Your task to perform on an android device: Go to Wikipedia Image 0: 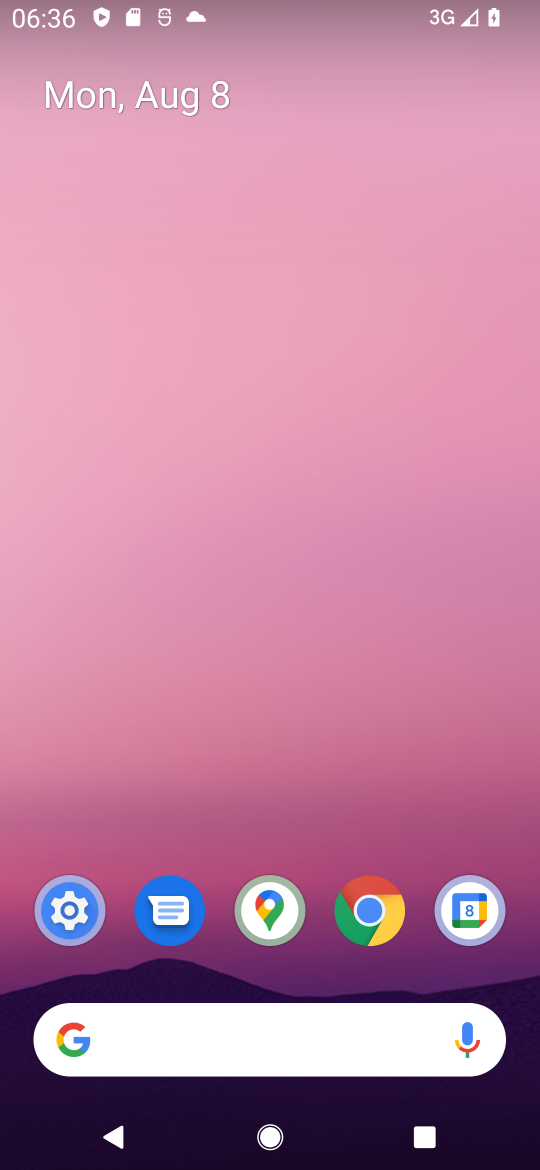
Step 0: click (368, 911)
Your task to perform on an android device: Go to Wikipedia Image 1: 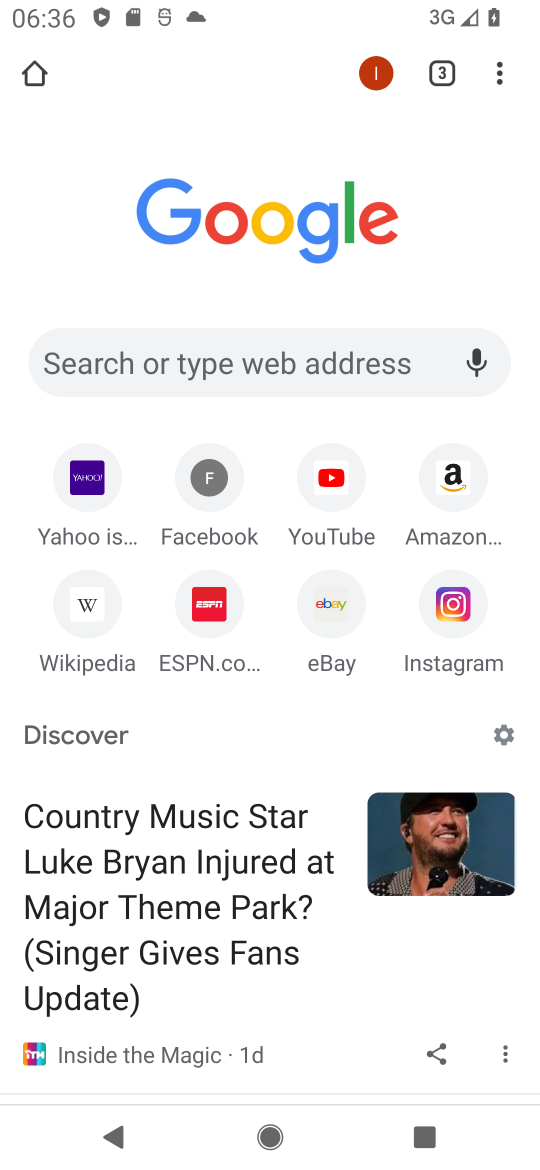
Step 1: click (247, 347)
Your task to perform on an android device: Go to Wikipedia Image 2: 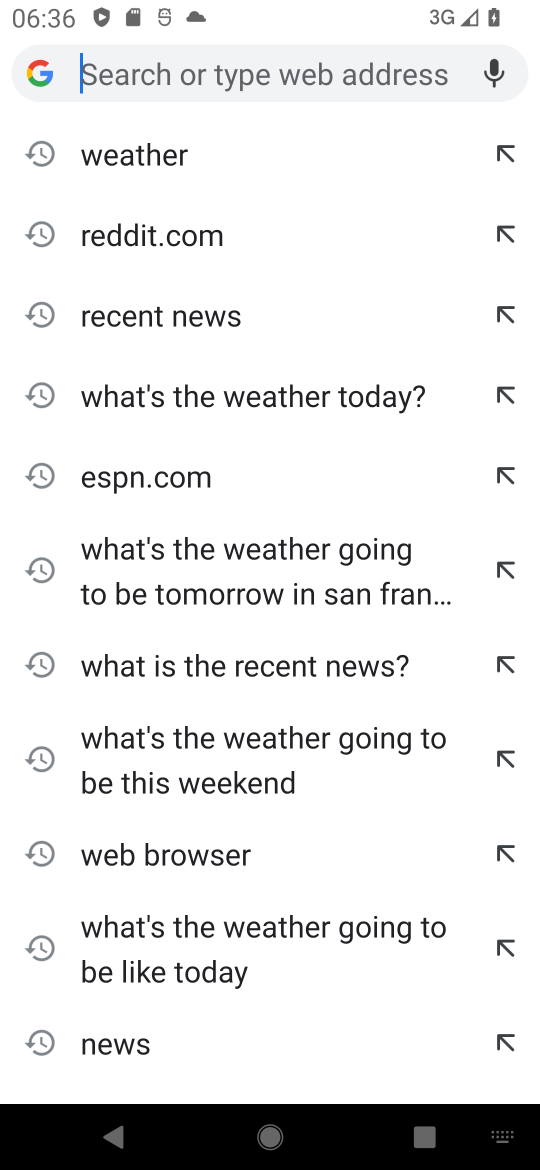
Step 2: type "Wikipedia"
Your task to perform on an android device: Go to Wikipedia Image 3: 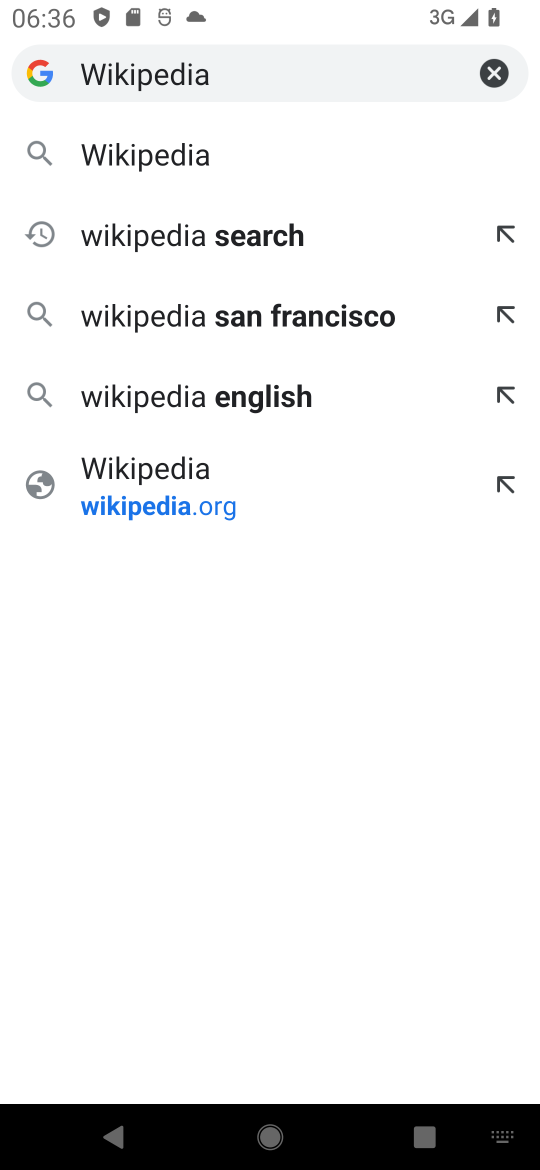
Step 3: click (178, 154)
Your task to perform on an android device: Go to Wikipedia Image 4: 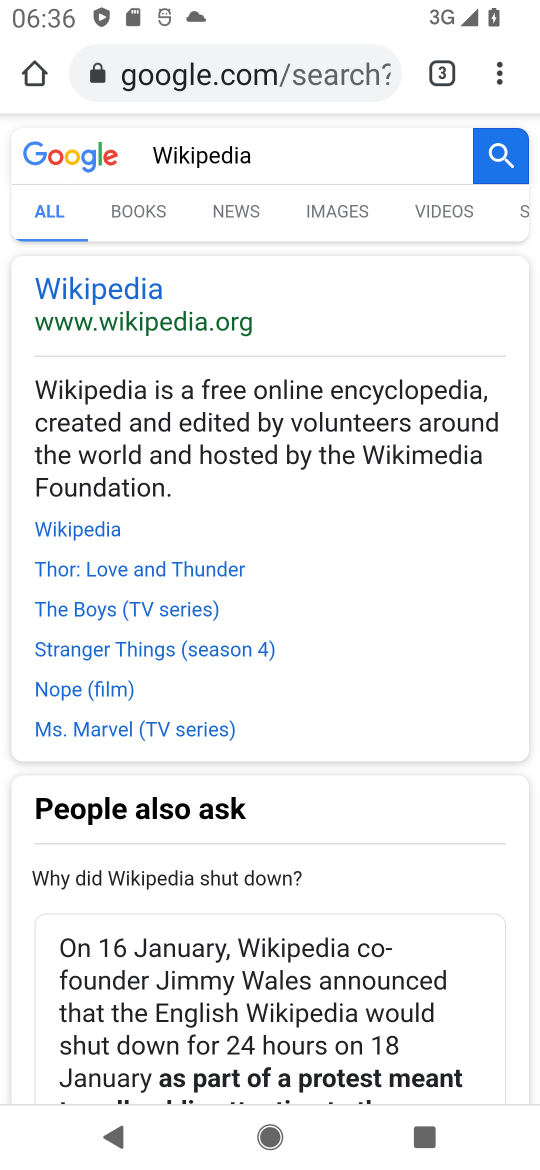
Step 4: click (174, 325)
Your task to perform on an android device: Go to Wikipedia Image 5: 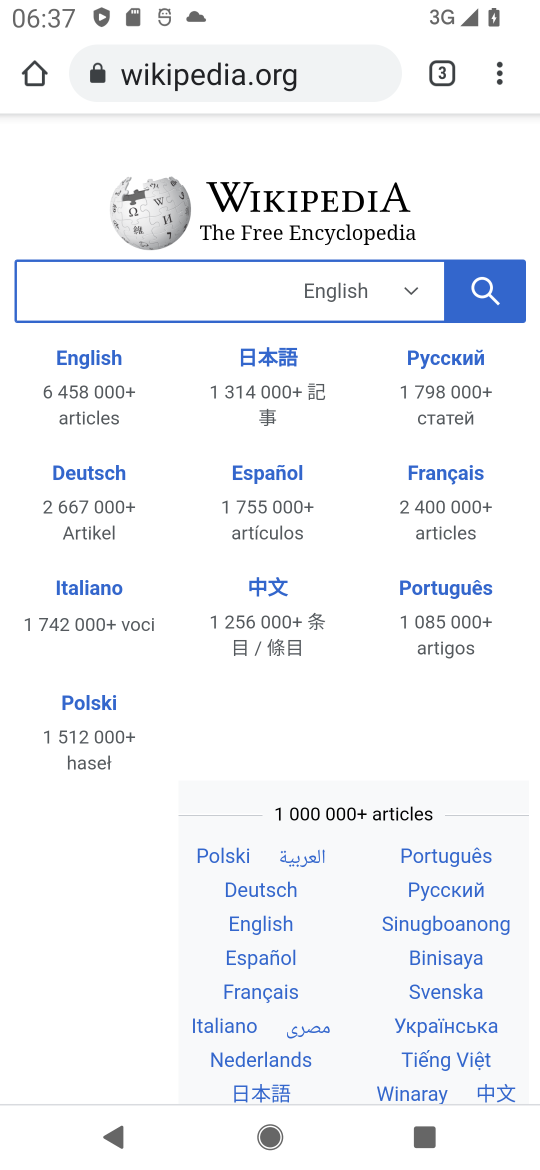
Step 5: task complete